Your task to perform on an android device: Open settings on Google Maps Image 0: 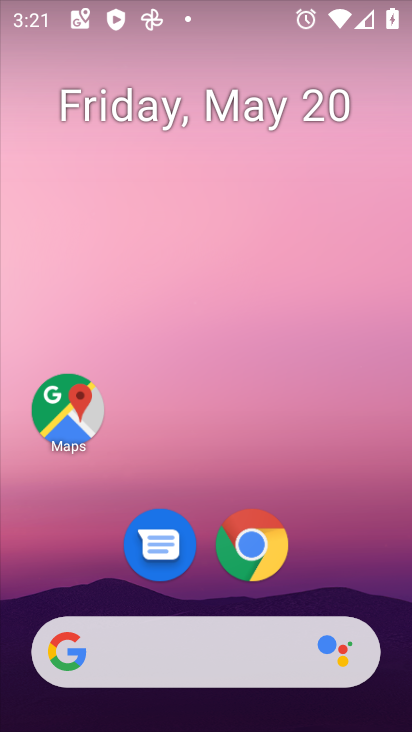
Step 0: click (81, 405)
Your task to perform on an android device: Open settings on Google Maps Image 1: 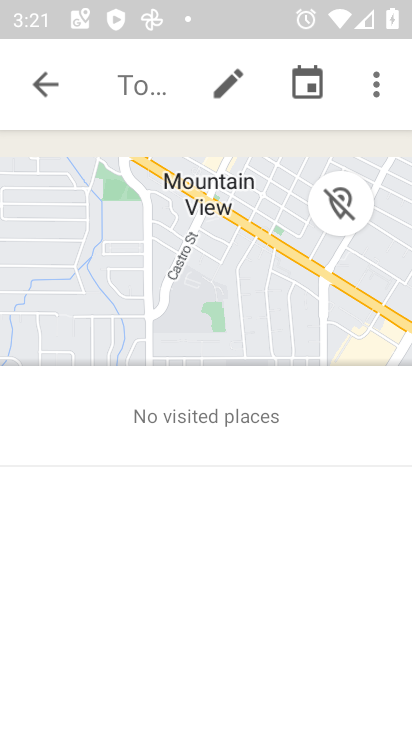
Step 1: click (38, 75)
Your task to perform on an android device: Open settings on Google Maps Image 2: 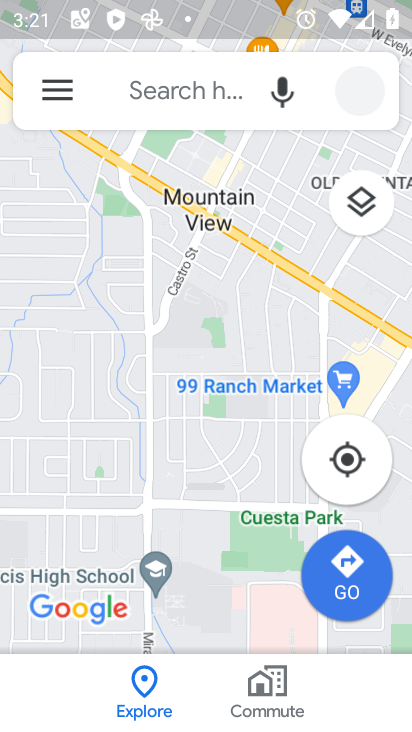
Step 2: click (38, 75)
Your task to perform on an android device: Open settings on Google Maps Image 3: 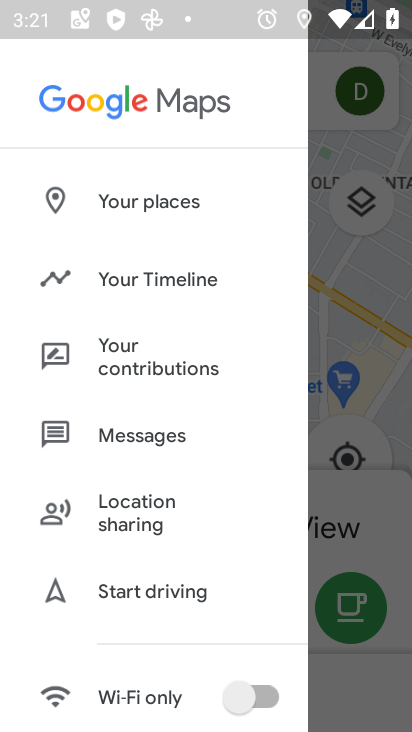
Step 3: drag from (222, 654) to (213, 192)
Your task to perform on an android device: Open settings on Google Maps Image 4: 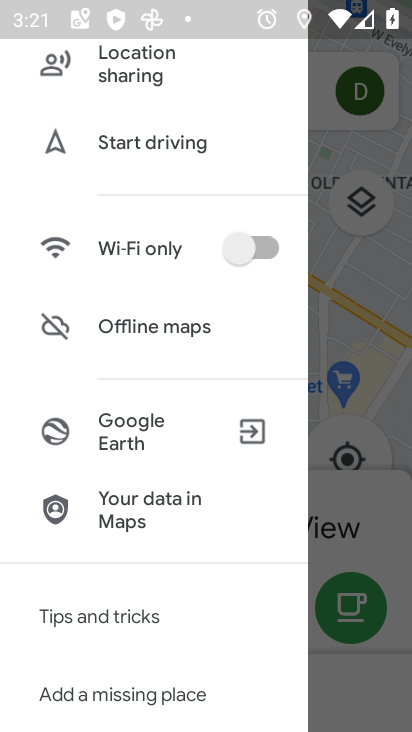
Step 4: drag from (171, 655) to (188, 252)
Your task to perform on an android device: Open settings on Google Maps Image 5: 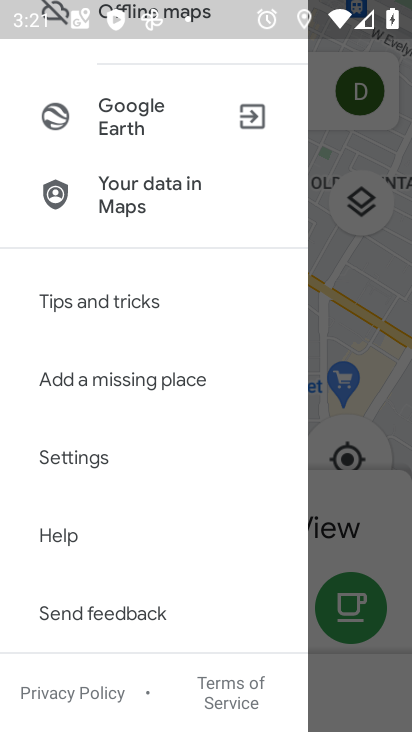
Step 5: click (70, 461)
Your task to perform on an android device: Open settings on Google Maps Image 6: 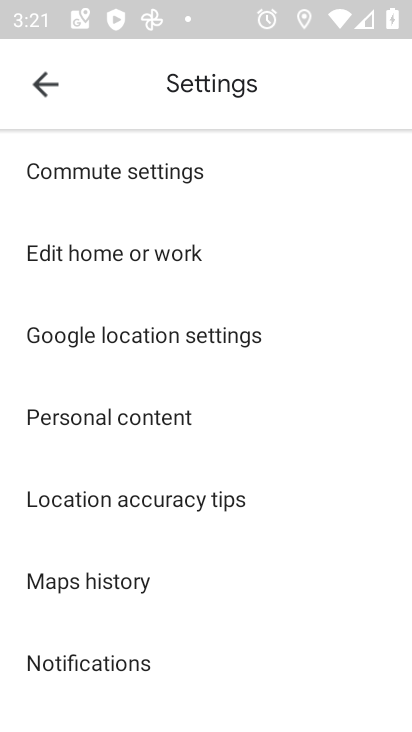
Step 6: task complete